Your task to perform on an android device: turn on wifi Image 0: 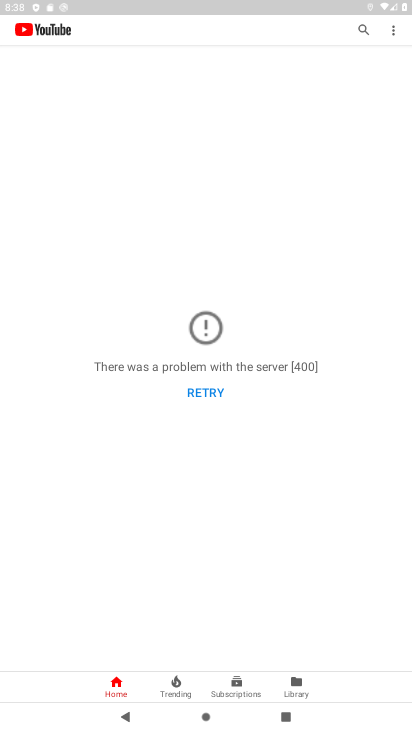
Step 0: press home button
Your task to perform on an android device: turn on wifi Image 1: 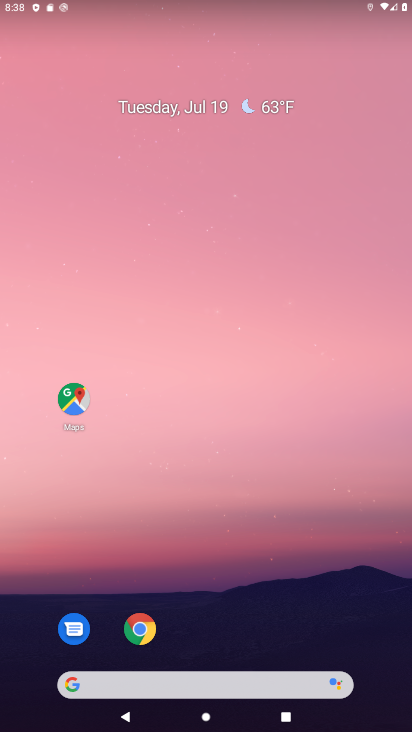
Step 1: task complete